Your task to perform on an android device: open a new tab in the chrome app Image 0: 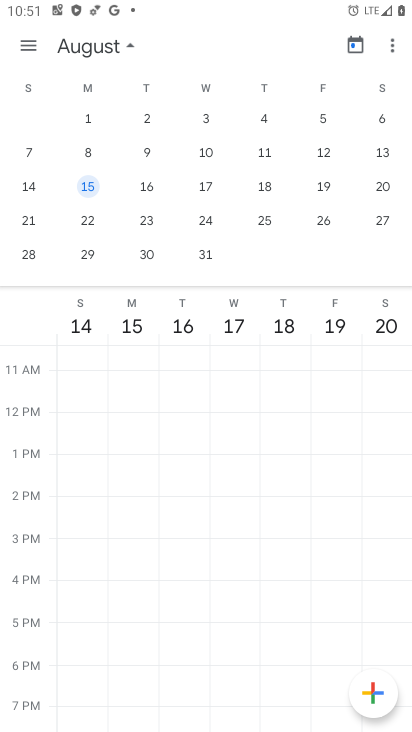
Step 0: press home button
Your task to perform on an android device: open a new tab in the chrome app Image 1: 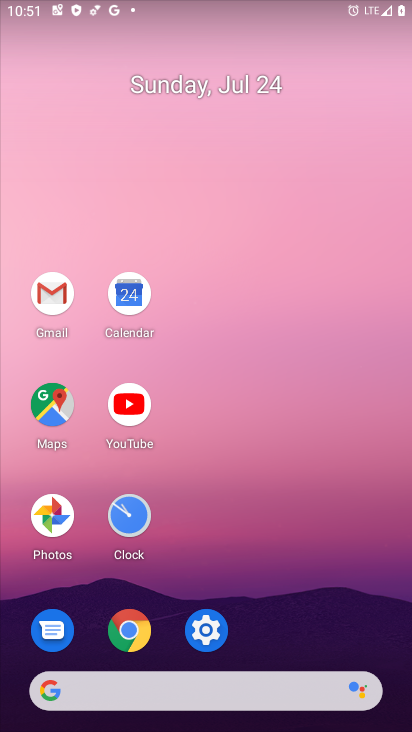
Step 1: click (128, 629)
Your task to perform on an android device: open a new tab in the chrome app Image 2: 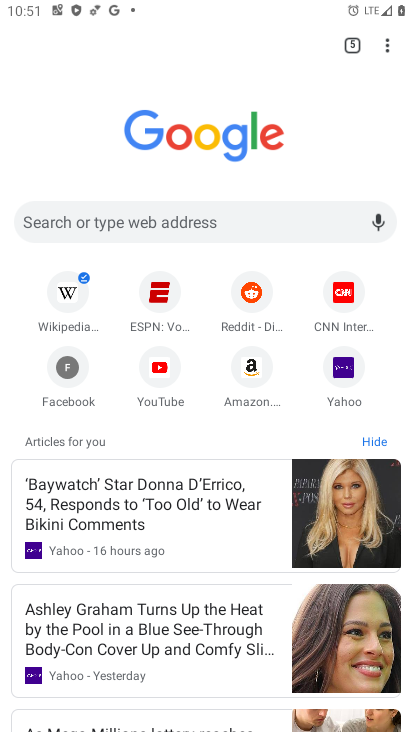
Step 2: click (384, 45)
Your task to perform on an android device: open a new tab in the chrome app Image 3: 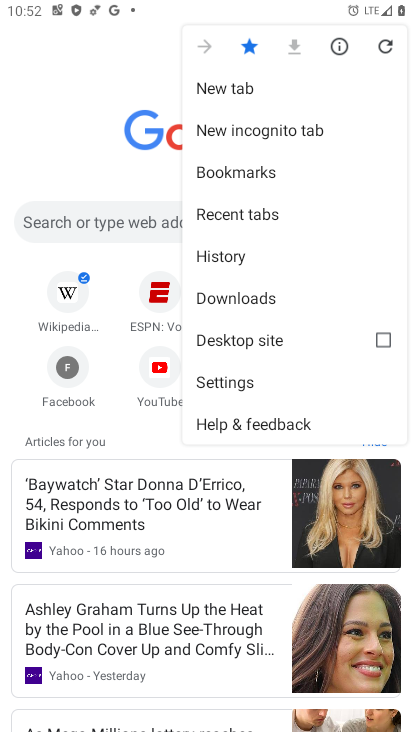
Step 3: click (241, 87)
Your task to perform on an android device: open a new tab in the chrome app Image 4: 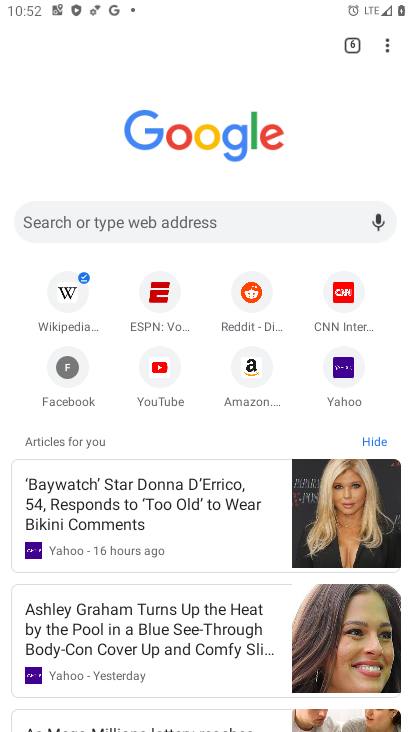
Step 4: task complete